Your task to perform on an android device: Play the last video I watched on Youtube Image 0: 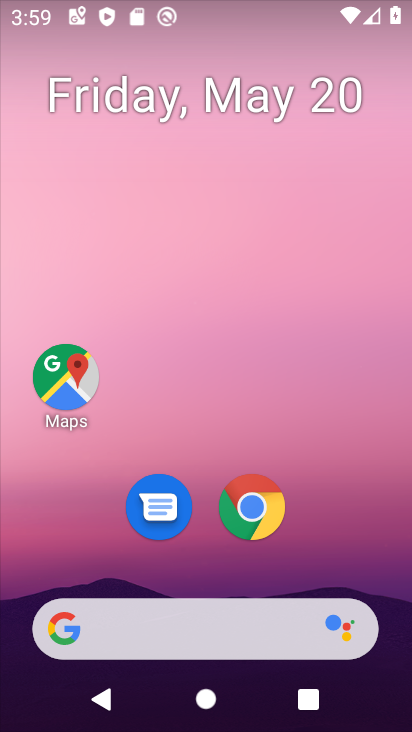
Step 0: drag from (333, 535) to (312, 84)
Your task to perform on an android device: Play the last video I watched on Youtube Image 1: 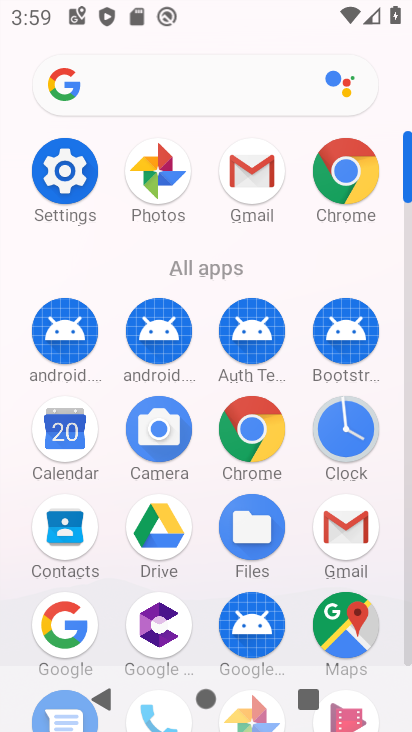
Step 1: drag from (292, 418) to (287, 264)
Your task to perform on an android device: Play the last video I watched on Youtube Image 2: 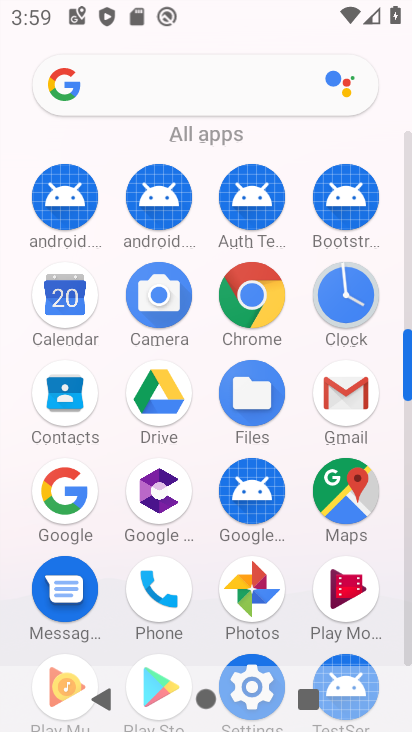
Step 2: drag from (297, 458) to (305, 280)
Your task to perform on an android device: Play the last video I watched on Youtube Image 3: 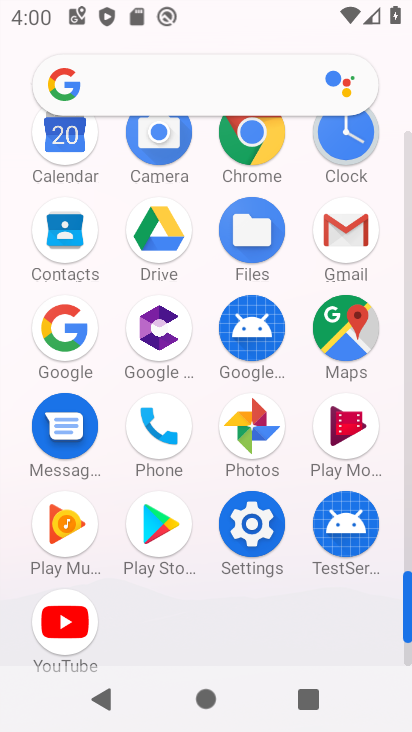
Step 3: click (63, 623)
Your task to perform on an android device: Play the last video I watched on Youtube Image 4: 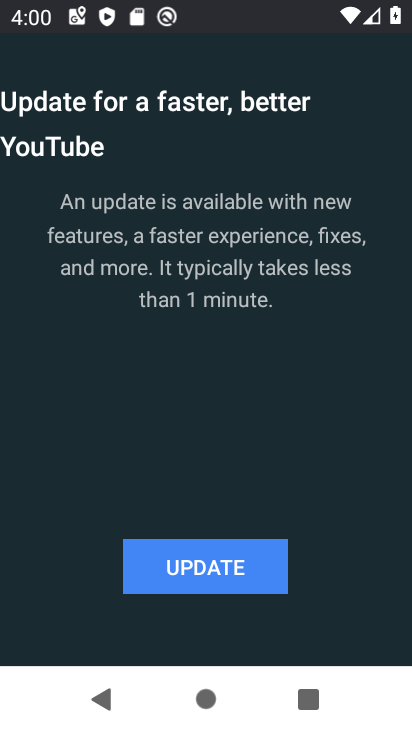
Step 4: click (176, 569)
Your task to perform on an android device: Play the last video I watched on Youtube Image 5: 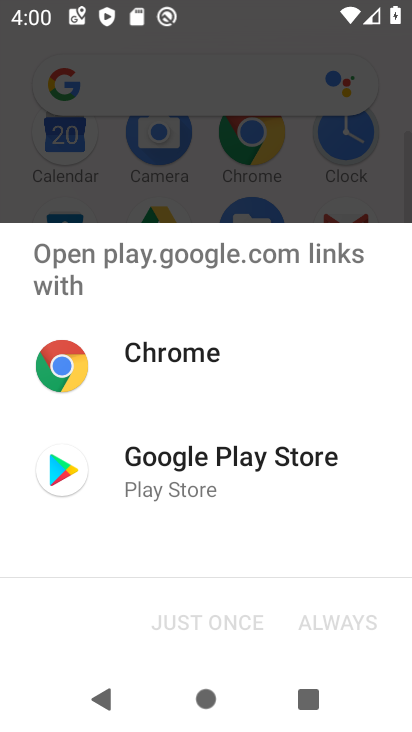
Step 5: click (178, 464)
Your task to perform on an android device: Play the last video I watched on Youtube Image 6: 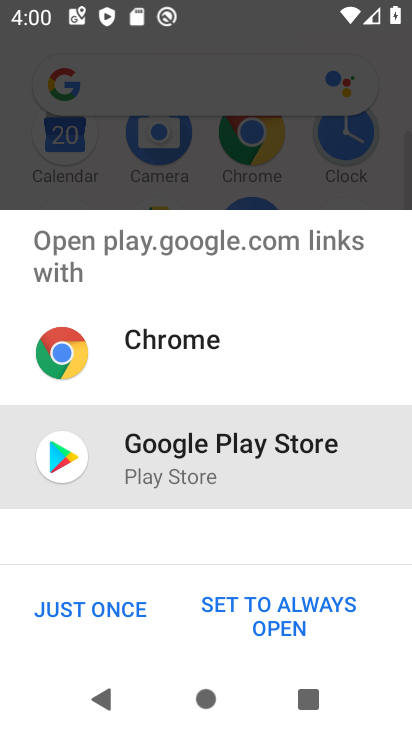
Step 6: click (103, 610)
Your task to perform on an android device: Play the last video I watched on Youtube Image 7: 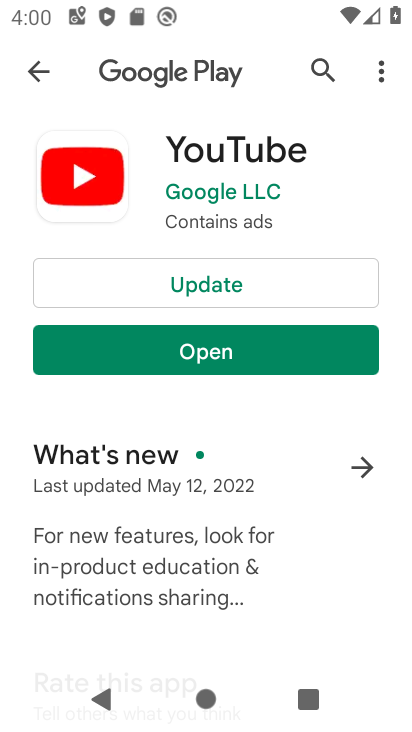
Step 7: click (218, 289)
Your task to perform on an android device: Play the last video I watched on Youtube Image 8: 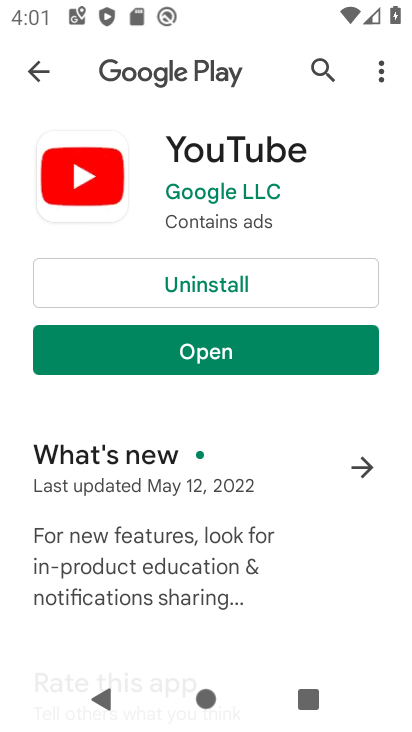
Step 8: click (206, 355)
Your task to perform on an android device: Play the last video I watched on Youtube Image 9: 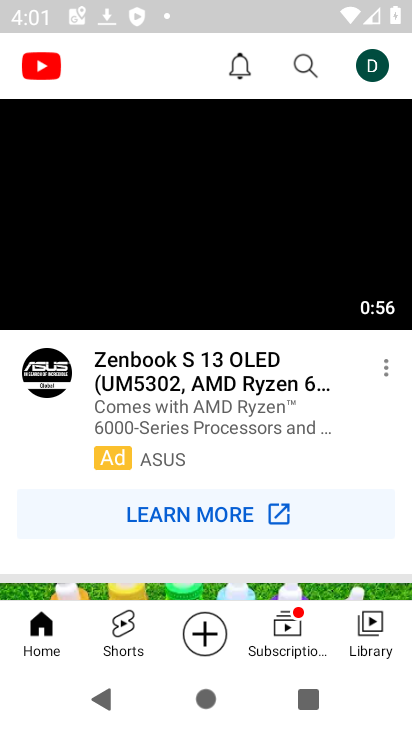
Step 9: click (378, 622)
Your task to perform on an android device: Play the last video I watched on Youtube Image 10: 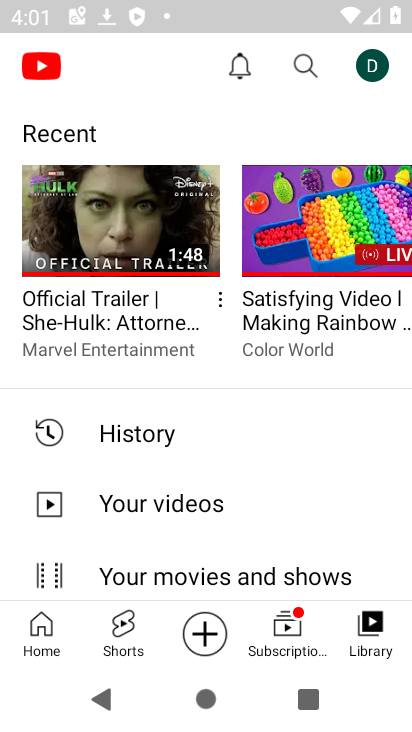
Step 10: click (102, 228)
Your task to perform on an android device: Play the last video I watched on Youtube Image 11: 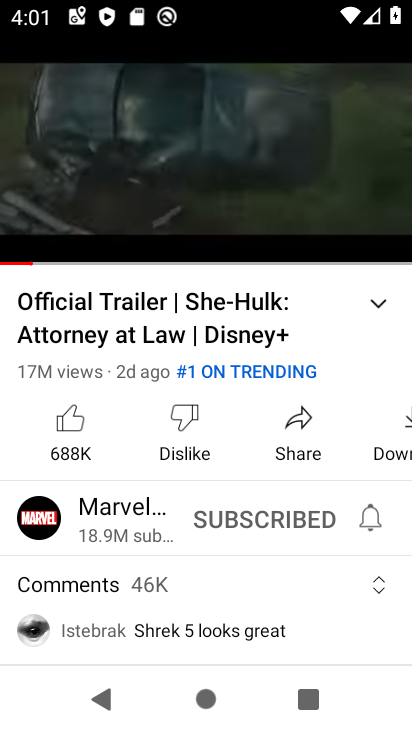
Step 11: click (235, 157)
Your task to perform on an android device: Play the last video I watched on Youtube Image 12: 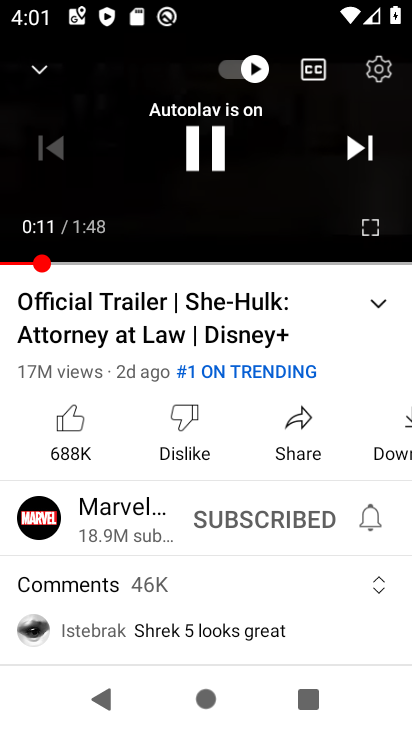
Step 12: click (211, 134)
Your task to perform on an android device: Play the last video I watched on Youtube Image 13: 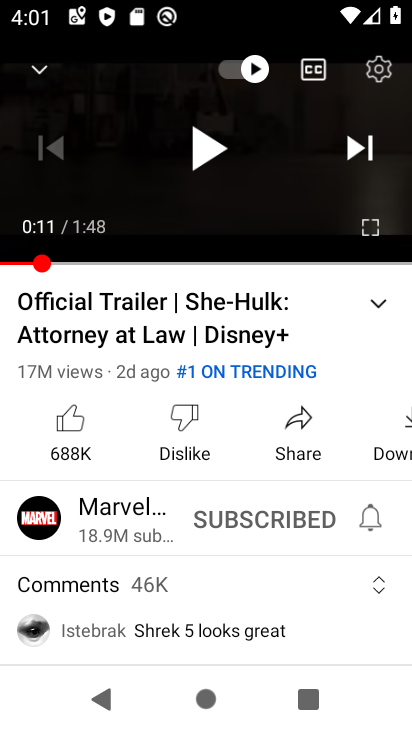
Step 13: task complete